Your task to perform on an android device: read, delete, or share a saved page in the chrome app Image 0: 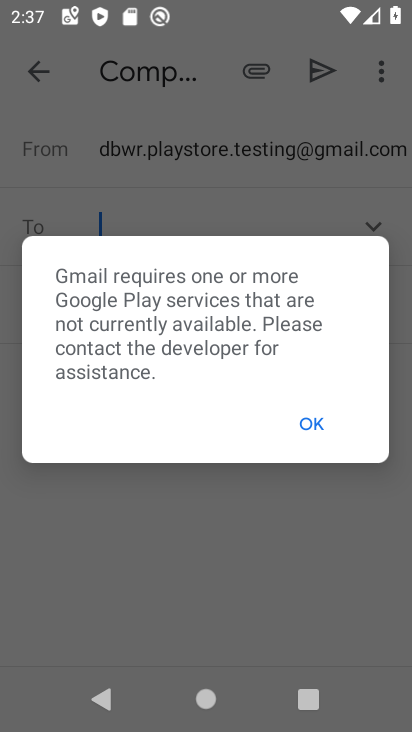
Step 0: drag from (332, 651) to (267, 272)
Your task to perform on an android device: read, delete, or share a saved page in the chrome app Image 1: 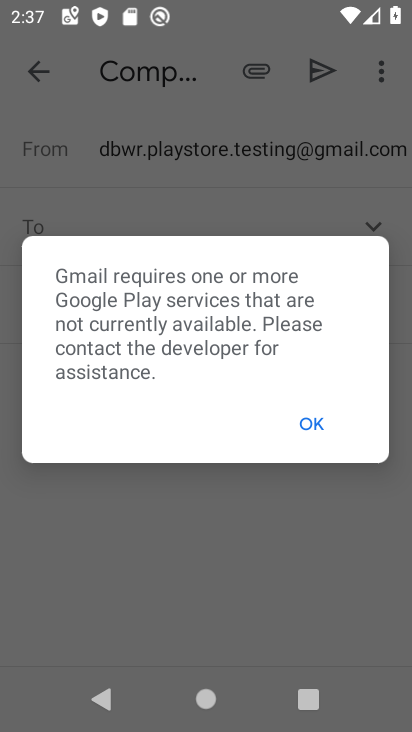
Step 1: click (308, 406)
Your task to perform on an android device: read, delete, or share a saved page in the chrome app Image 2: 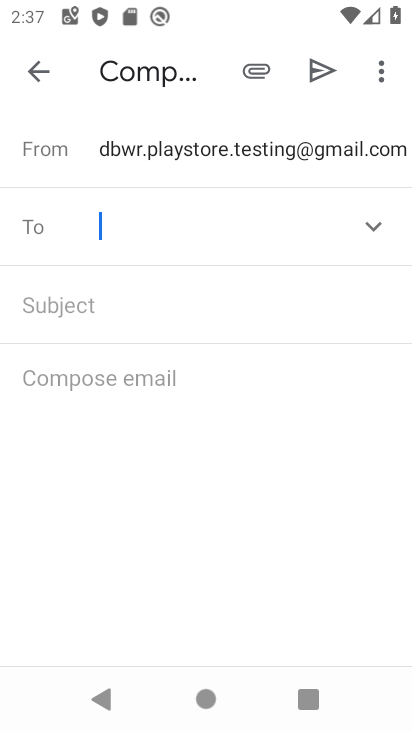
Step 2: click (37, 63)
Your task to perform on an android device: read, delete, or share a saved page in the chrome app Image 3: 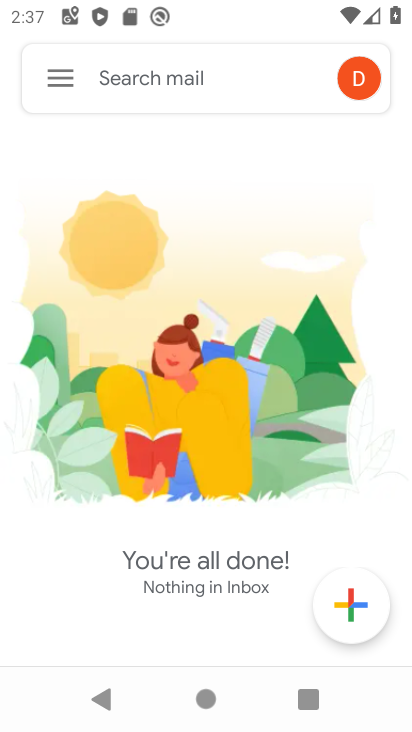
Step 3: drag from (149, 485) to (172, 19)
Your task to perform on an android device: read, delete, or share a saved page in the chrome app Image 4: 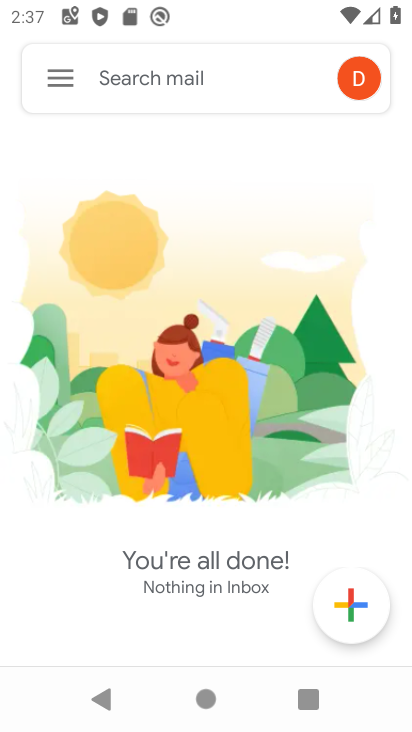
Step 4: click (51, 63)
Your task to perform on an android device: read, delete, or share a saved page in the chrome app Image 5: 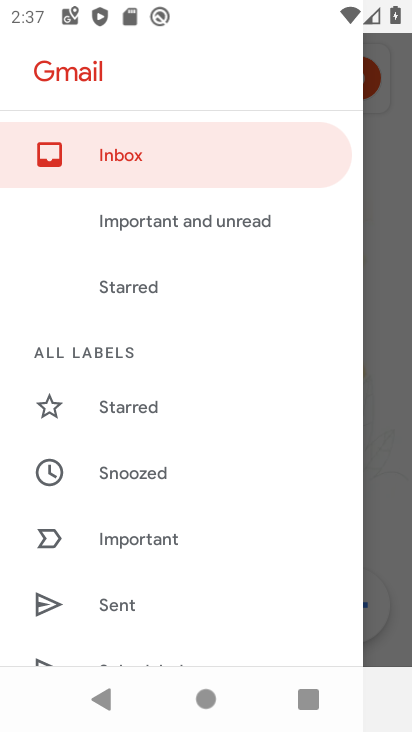
Step 5: click (383, 381)
Your task to perform on an android device: read, delete, or share a saved page in the chrome app Image 6: 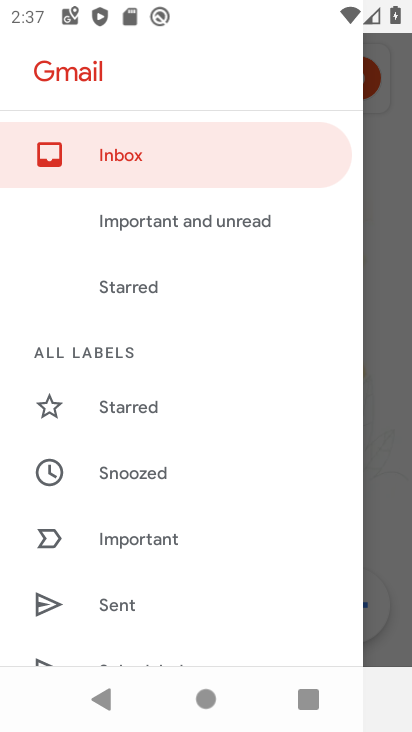
Step 6: click (383, 380)
Your task to perform on an android device: read, delete, or share a saved page in the chrome app Image 7: 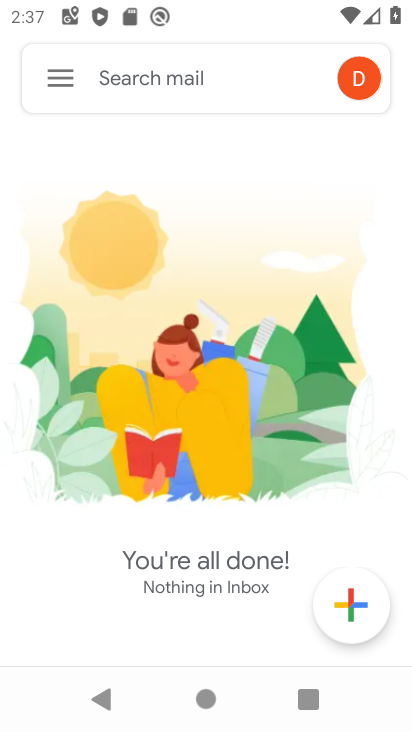
Step 7: click (384, 379)
Your task to perform on an android device: read, delete, or share a saved page in the chrome app Image 8: 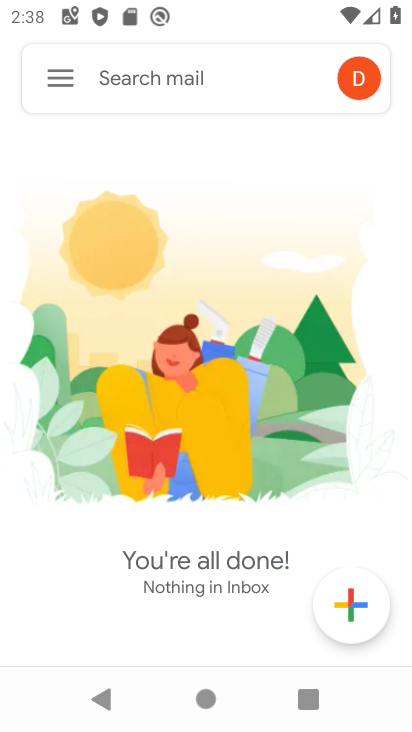
Step 8: drag from (205, 504) to (181, 275)
Your task to perform on an android device: read, delete, or share a saved page in the chrome app Image 9: 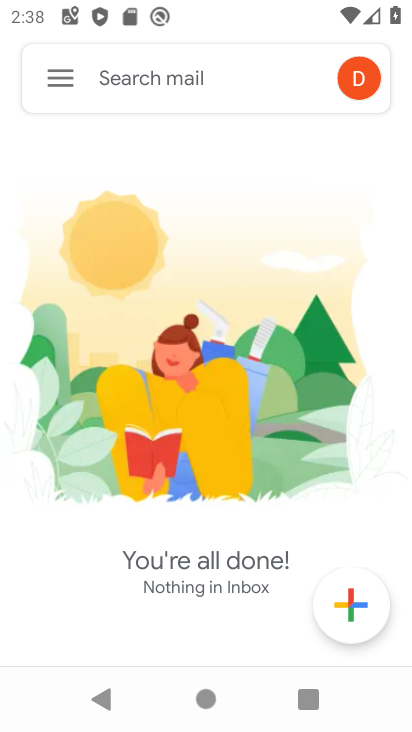
Step 9: drag from (244, 586) to (208, 203)
Your task to perform on an android device: read, delete, or share a saved page in the chrome app Image 10: 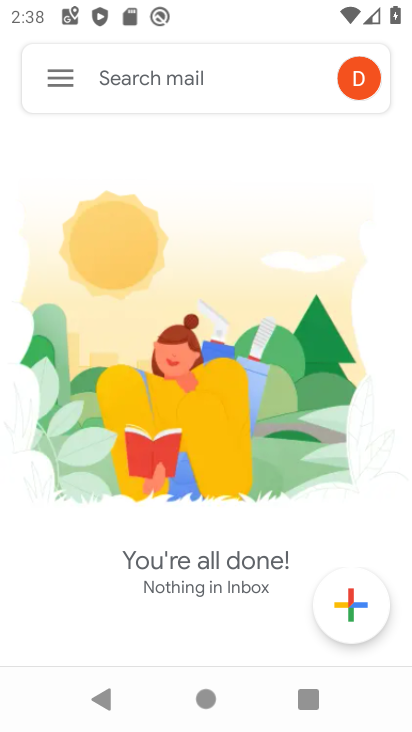
Step 10: drag from (256, 426) to (203, 60)
Your task to perform on an android device: read, delete, or share a saved page in the chrome app Image 11: 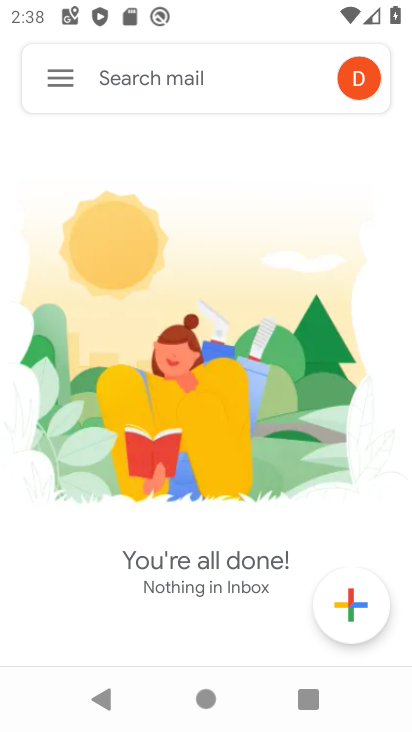
Step 11: drag from (215, 327) to (149, 1)
Your task to perform on an android device: read, delete, or share a saved page in the chrome app Image 12: 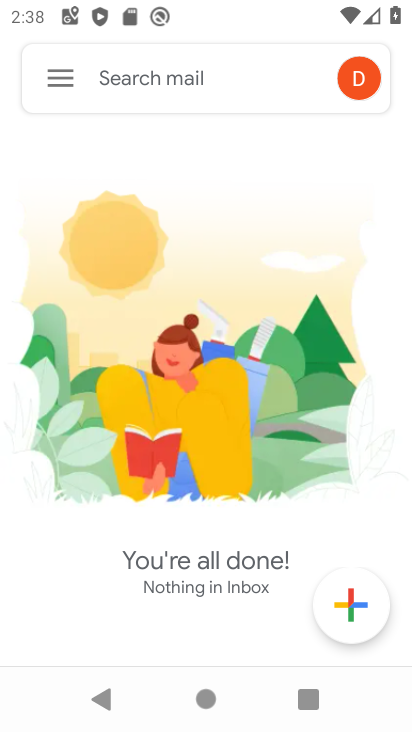
Step 12: drag from (220, 396) to (193, 153)
Your task to perform on an android device: read, delete, or share a saved page in the chrome app Image 13: 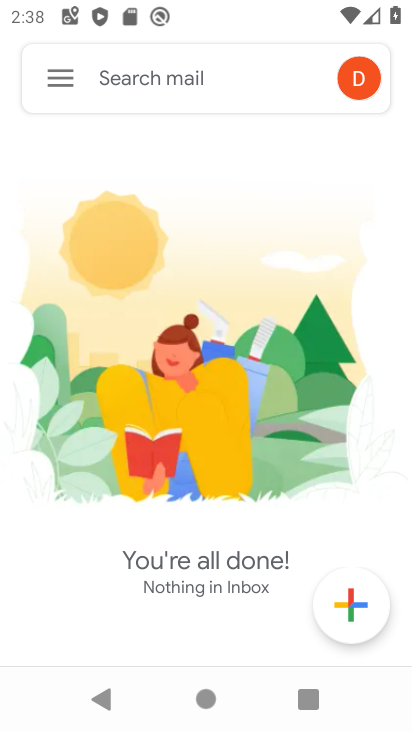
Step 13: drag from (208, 371) to (153, 7)
Your task to perform on an android device: read, delete, or share a saved page in the chrome app Image 14: 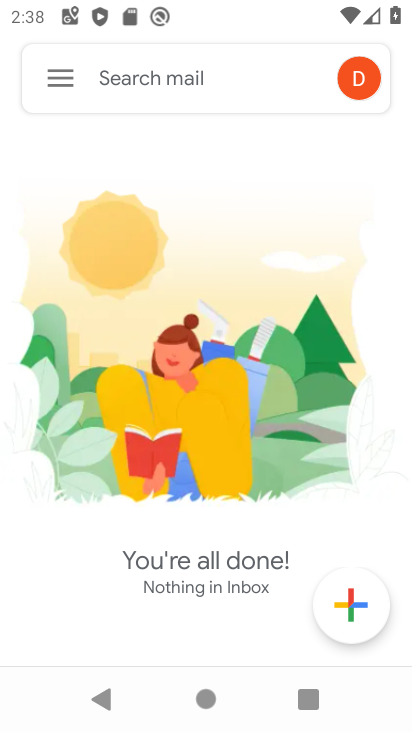
Step 14: drag from (202, 402) to (134, 175)
Your task to perform on an android device: read, delete, or share a saved page in the chrome app Image 15: 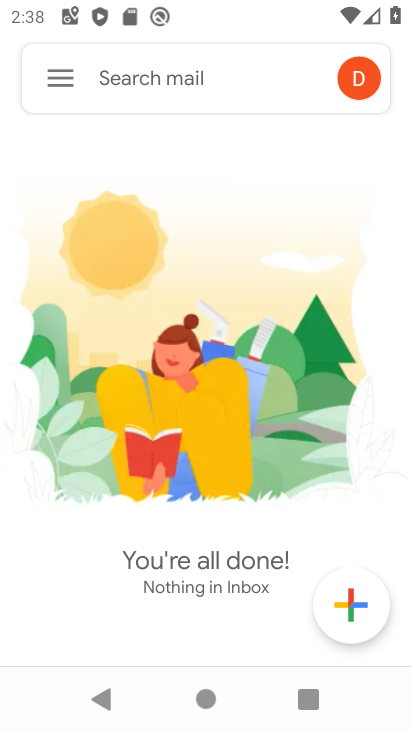
Step 15: drag from (230, 440) to (209, 185)
Your task to perform on an android device: read, delete, or share a saved page in the chrome app Image 16: 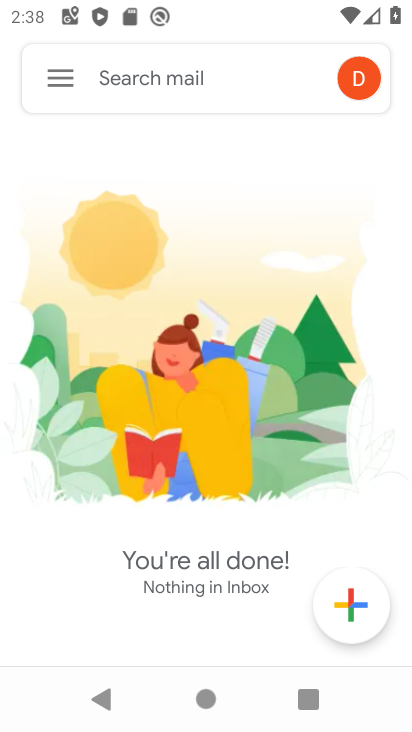
Step 16: drag from (206, 491) to (154, 149)
Your task to perform on an android device: read, delete, or share a saved page in the chrome app Image 17: 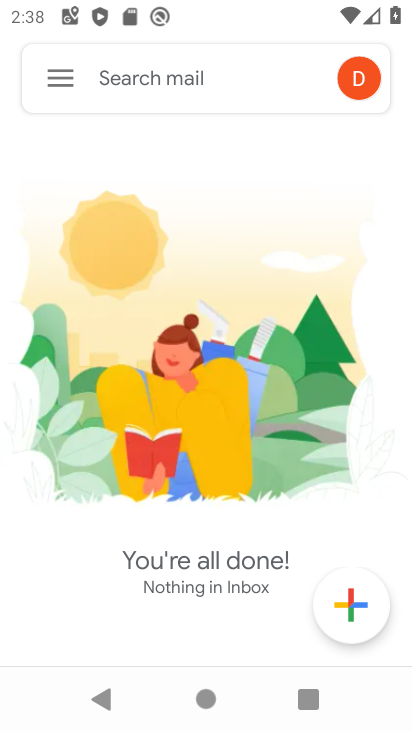
Step 17: drag from (213, 470) to (146, 96)
Your task to perform on an android device: read, delete, or share a saved page in the chrome app Image 18: 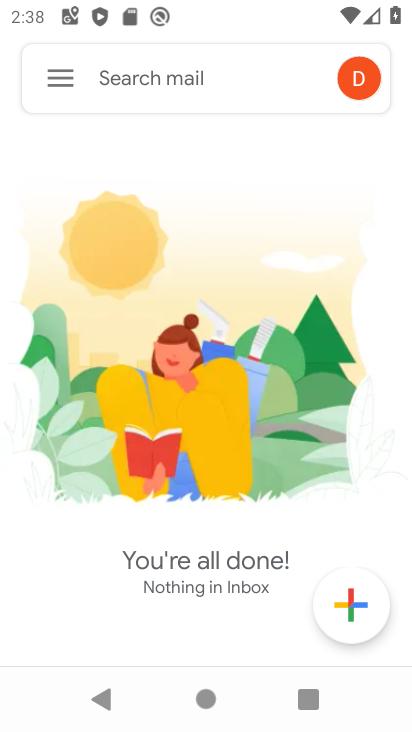
Step 18: drag from (64, 93) to (119, 344)
Your task to perform on an android device: read, delete, or share a saved page in the chrome app Image 19: 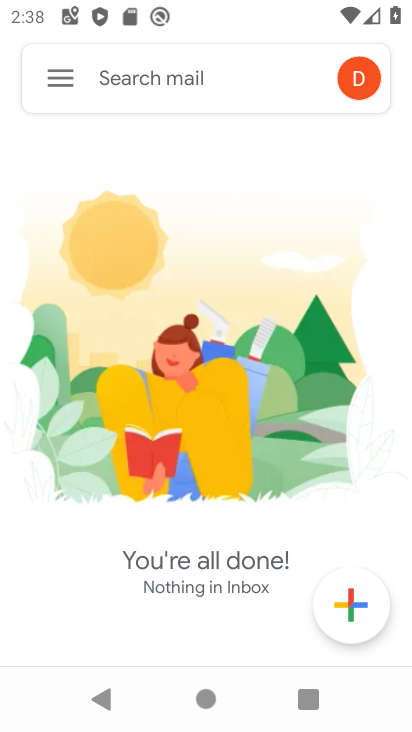
Step 19: press back button
Your task to perform on an android device: read, delete, or share a saved page in the chrome app Image 20: 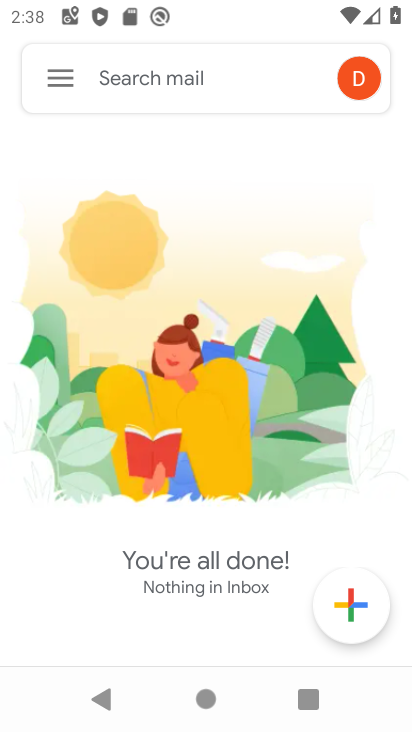
Step 20: press back button
Your task to perform on an android device: read, delete, or share a saved page in the chrome app Image 21: 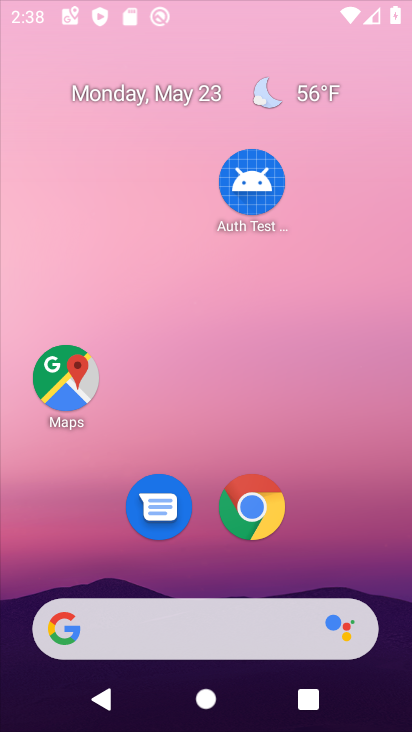
Step 21: press back button
Your task to perform on an android device: read, delete, or share a saved page in the chrome app Image 22: 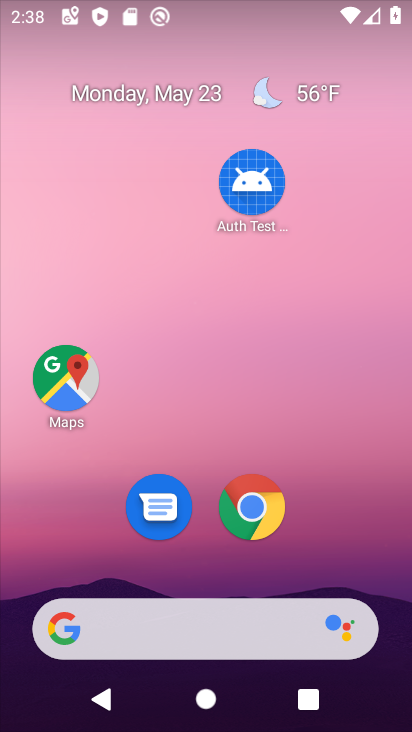
Step 22: drag from (254, 702) to (145, 230)
Your task to perform on an android device: read, delete, or share a saved page in the chrome app Image 23: 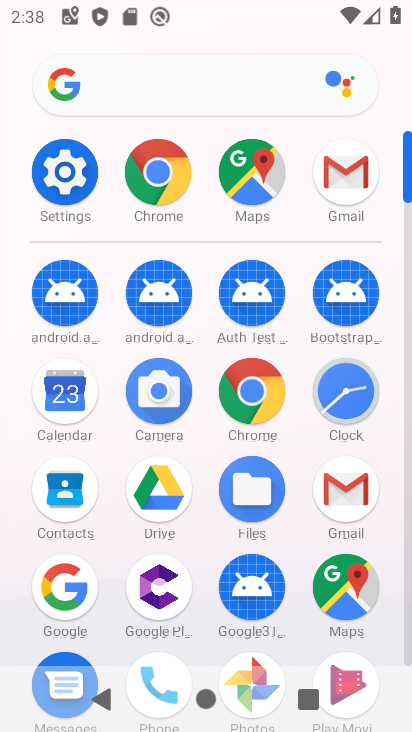
Step 23: click (145, 172)
Your task to perform on an android device: read, delete, or share a saved page in the chrome app Image 24: 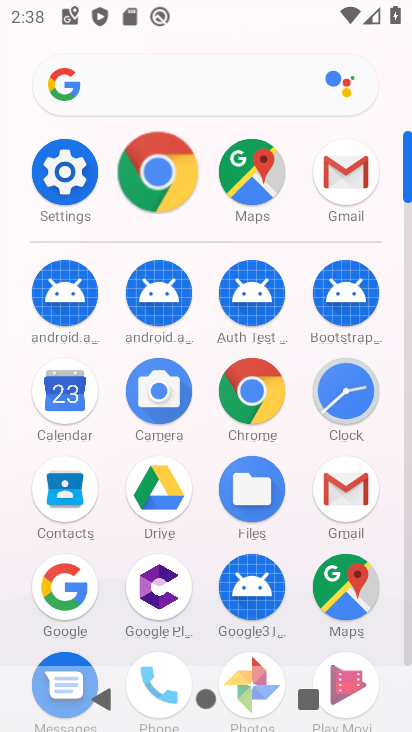
Step 24: click (151, 168)
Your task to perform on an android device: read, delete, or share a saved page in the chrome app Image 25: 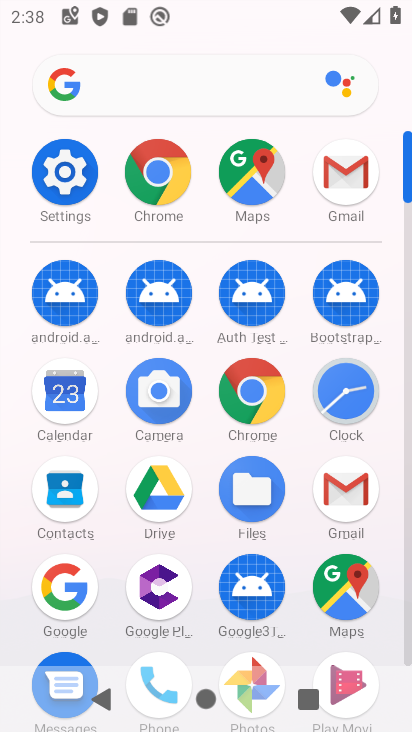
Step 25: click (159, 166)
Your task to perform on an android device: read, delete, or share a saved page in the chrome app Image 26: 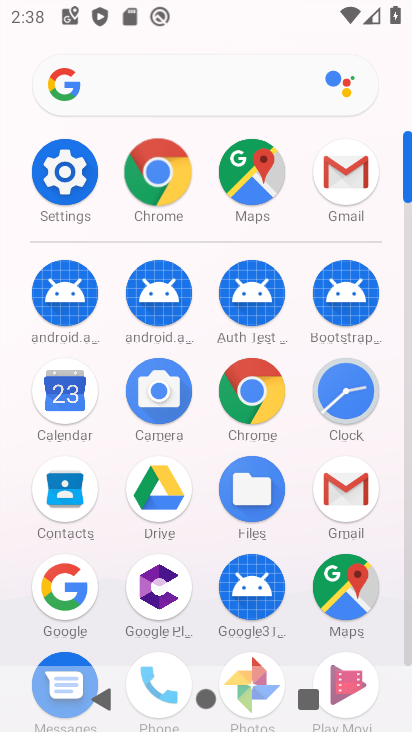
Step 26: click (159, 166)
Your task to perform on an android device: read, delete, or share a saved page in the chrome app Image 27: 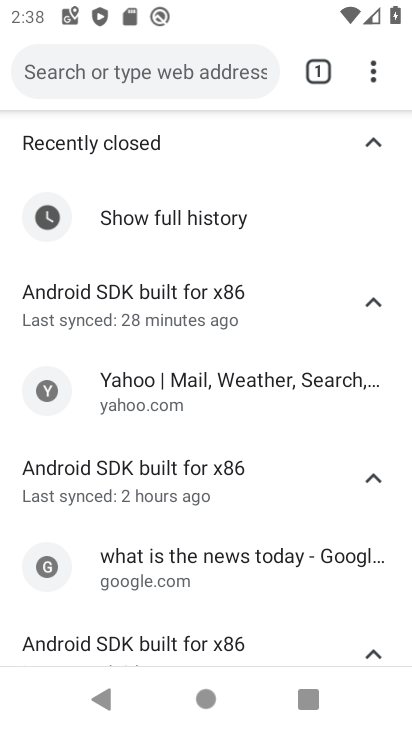
Step 27: press back button
Your task to perform on an android device: read, delete, or share a saved page in the chrome app Image 28: 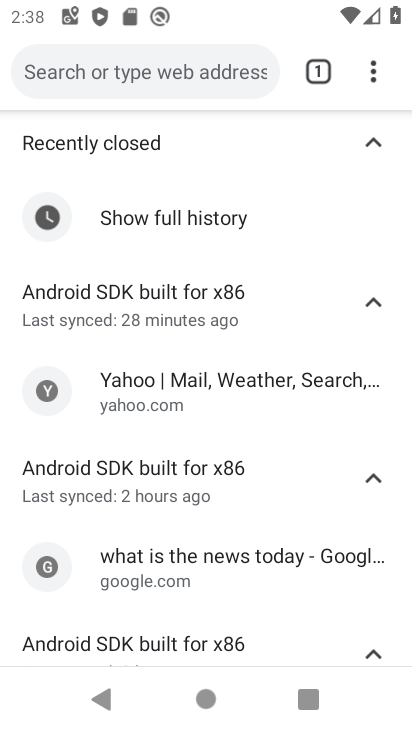
Step 28: press back button
Your task to perform on an android device: read, delete, or share a saved page in the chrome app Image 29: 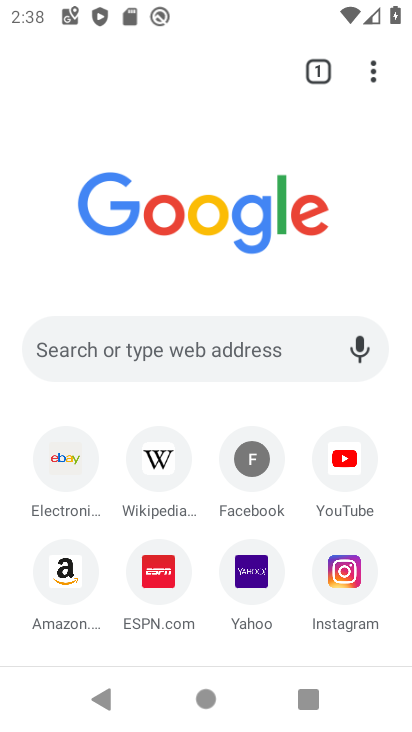
Step 29: press back button
Your task to perform on an android device: read, delete, or share a saved page in the chrome app Image 30: 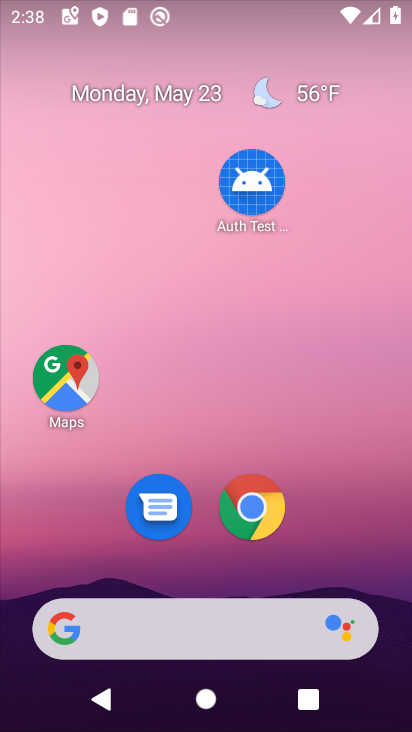
Step 30: drag from (332, 629) to (151, 26)
Your task to perform on an android device: read, delete, or share a saved page in the chrome app Image 31: 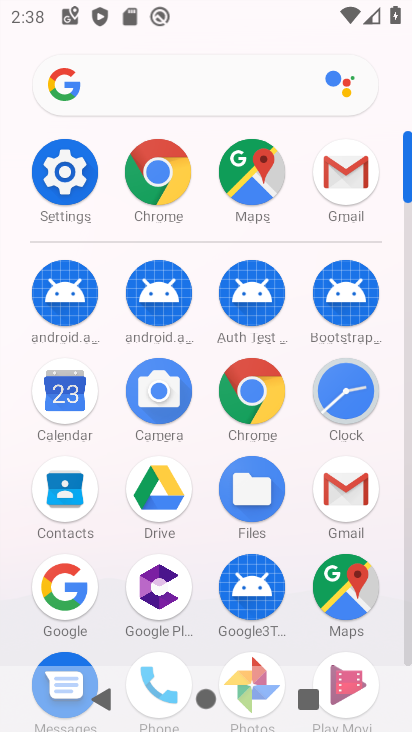
Step 31: click (171, 162)
Your task to perform on an android device: read, delete, or share a saved page in the chrome app Image 32: 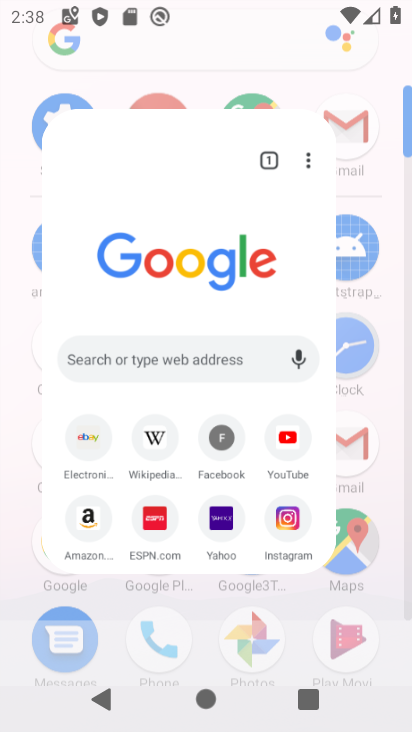
Step 32: click (157, 167)
Your task to perform on an android device: read, delete, or share a saved page in the chrome app Image 33: 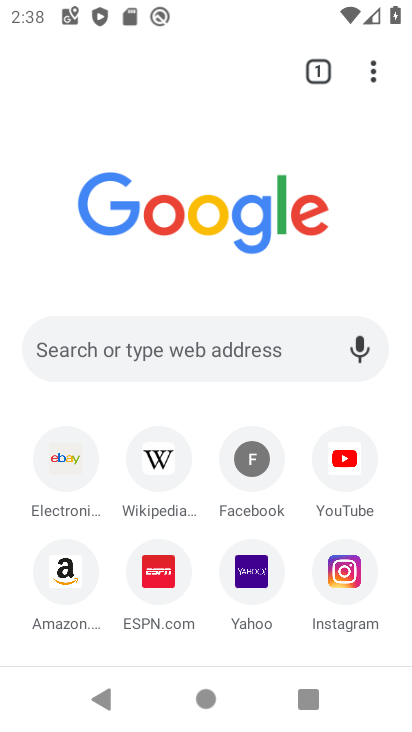
Step 33: drag from (366, 74) to (111, 462)
Your task to perform on an android device: read, delete, or share a saved page in the chrome app Image 34: 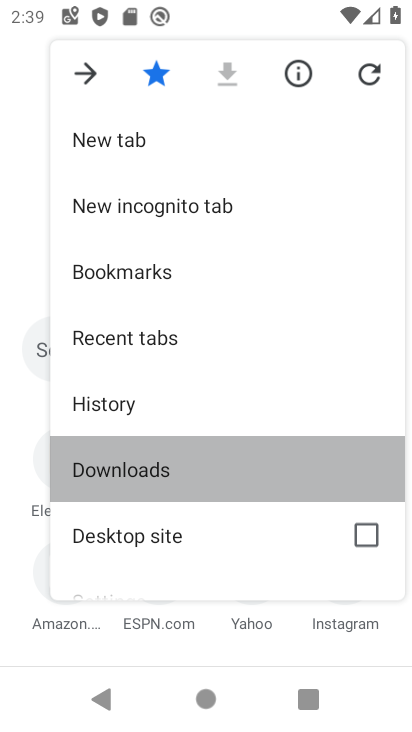
Step 34: click (111, 461)
Your task to perform on an android device: read, delete, or share a saved page in the chrome app Image 35: 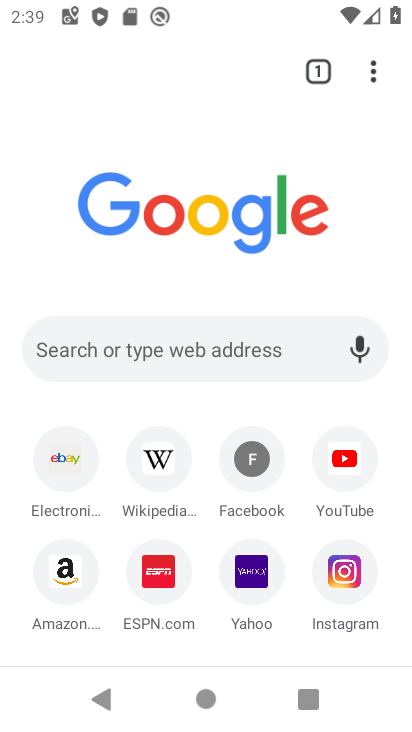
Step 35: click (114, 455)
Your task to perform on an android device: read, delete, or share a saved page in the chrome app Image 36: 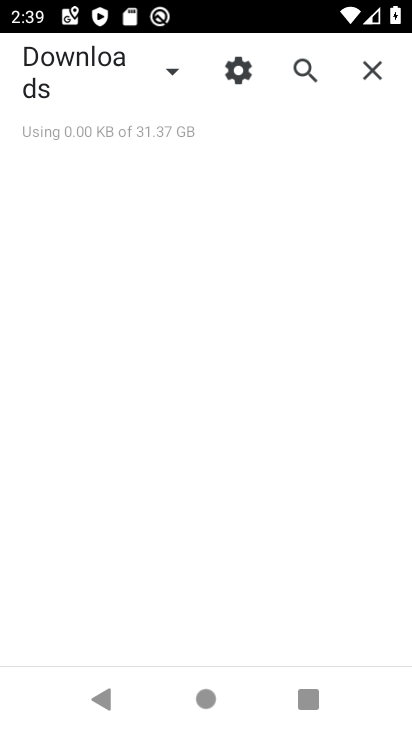
Step 36: task complete